Your task to perform on an android device: empty trash in the gmail app Image 0: 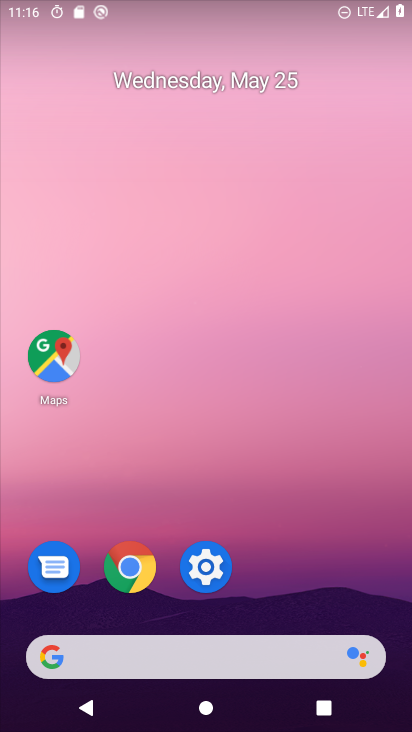
Step 0: drag from (194, 464) to (157, 158)
Your task to perform on an android device: empty trash in the gmail app Image 1: 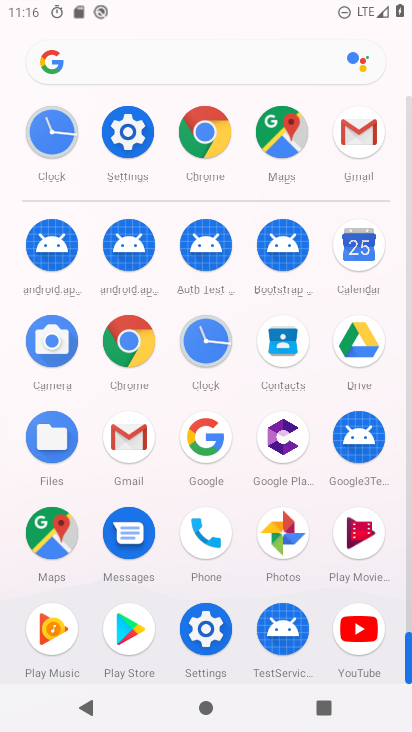
Step 1: click (127, 436)
Your task to perform on an android device: empty trash in the gmail app Image 2: 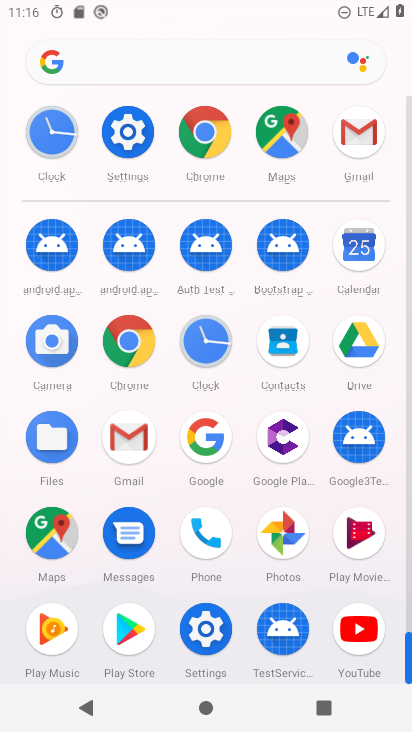
Step 2: click (126, 436)
Your task to perform on an android device: empty trash in the gmail app Image 3: 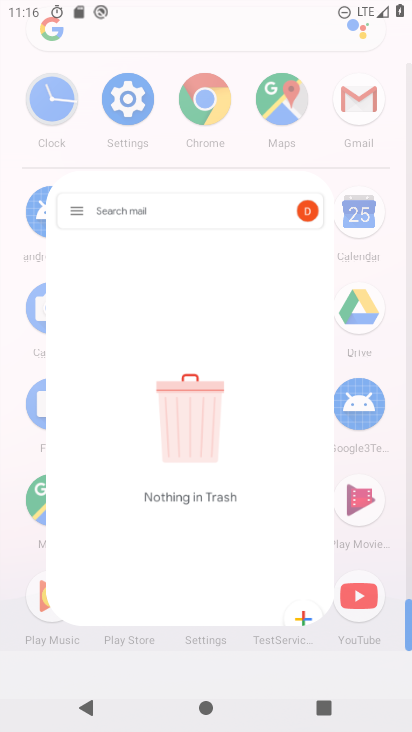
Step 3: click (125, 437)
Your task to perform on an android device: empty trash in the gmail app Image 4: 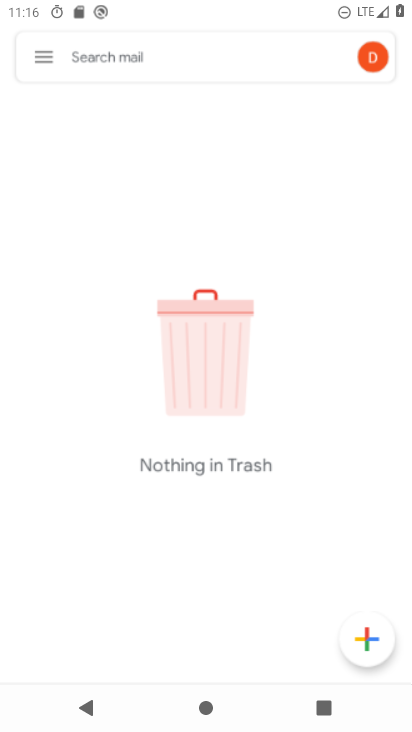
Step 4: click (125, 437)
Your task to perform on an android device: empty trash in the gmail app Image 5: 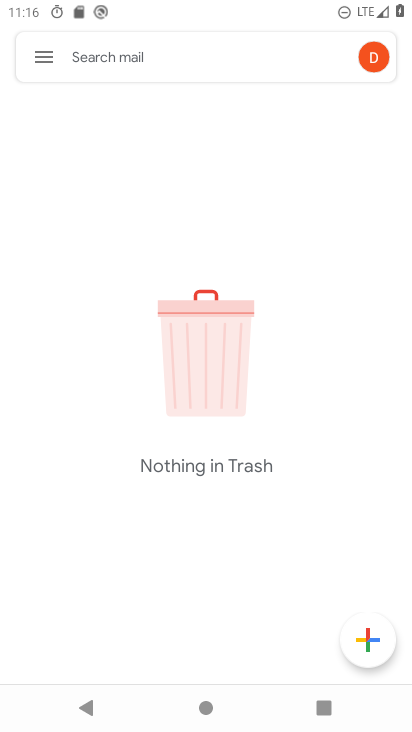
Step 5: click (29, 75)
Your task to perform on an android device: empty trash in the gmail app Image 6: 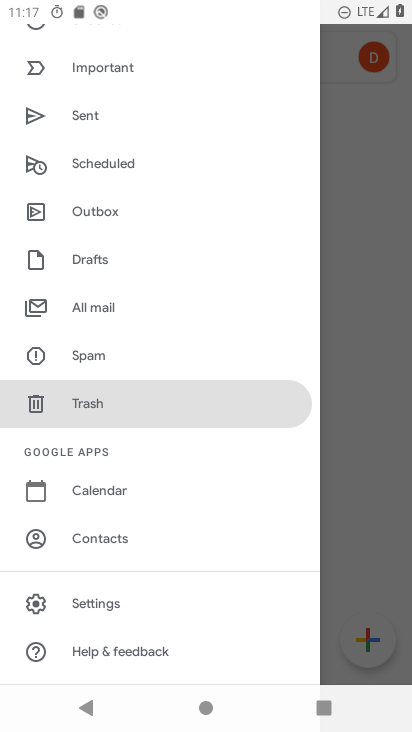
Step 6: click (77, 393)
Your task to perform on an android device: empty trash in the gmail app Image 7: 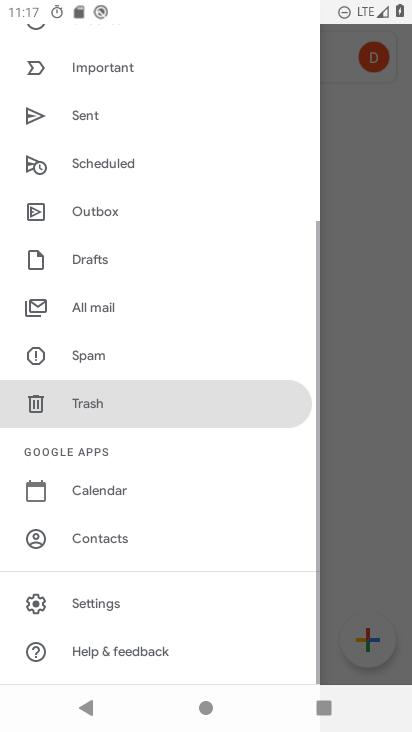
Step 7: click (77, 393)
Your task to perform on an android device: empty trash in the gmail app Image 8: 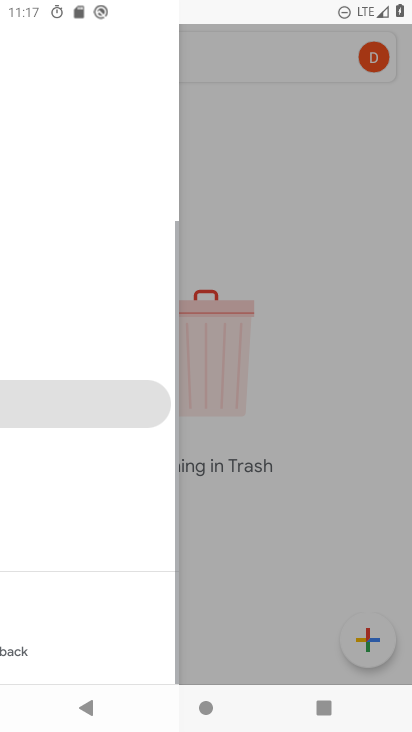
Step 8: click (77, 393)
Your task to perform on an android device: empty trash in the gmail app Image 9: 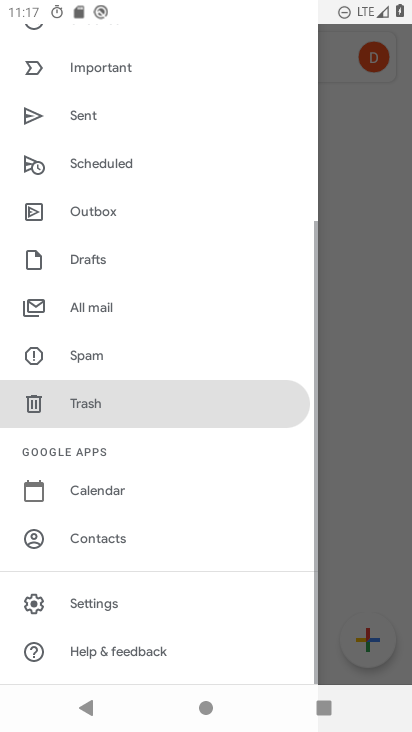
Step 9: click (77, 393)
Your task to perform on an android device: empty trash in the gmail app Image 10: 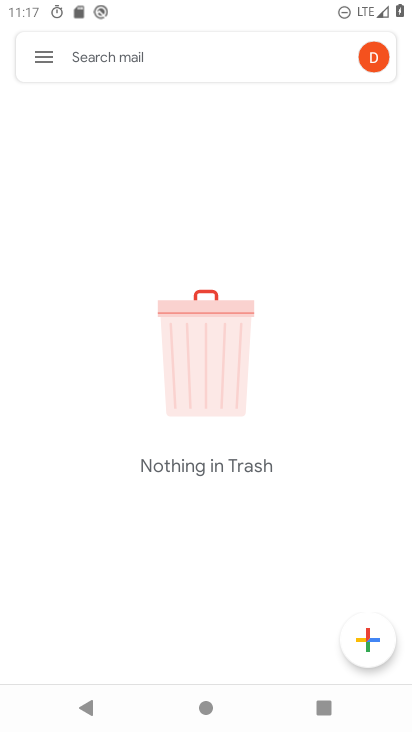
Step 10: task complete